Your task to perform on an android device: toggle improve location accuracy Image 0: 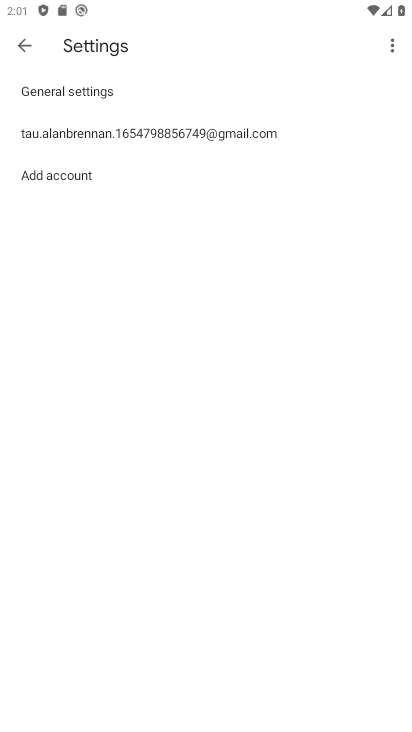
Step 0: press home button
Your task to perform on an android device: toggle improve location accuracy Image 1: 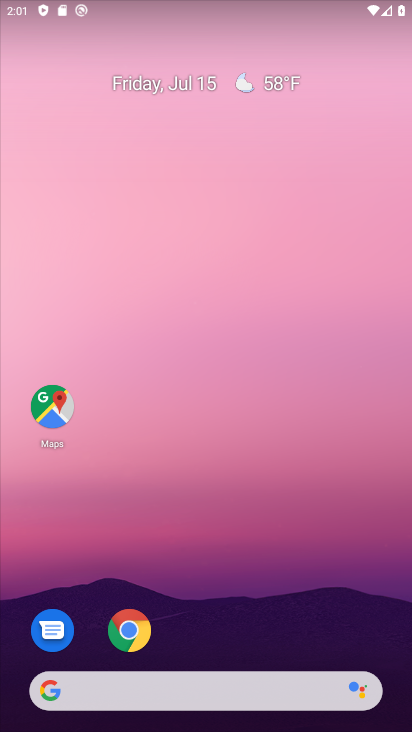
Step 1: drag from (365, 610) to (375, 116)
Your task to perform on an android device: toggle improve location accuracy Image 2: 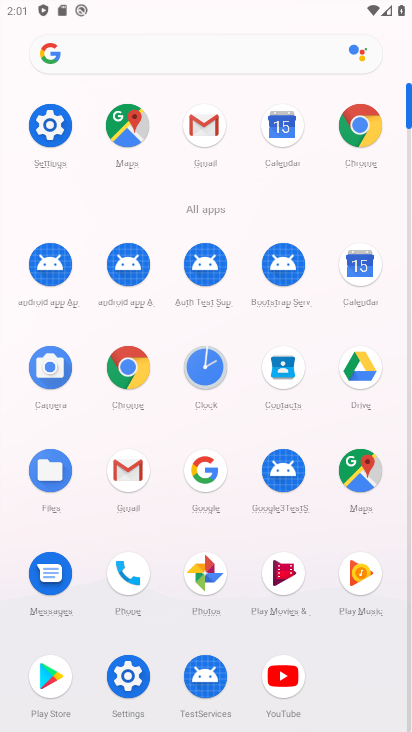
Step 2: click (47, 130)
Your task to perform on an android device: toggle improve location accuracy Image 3: 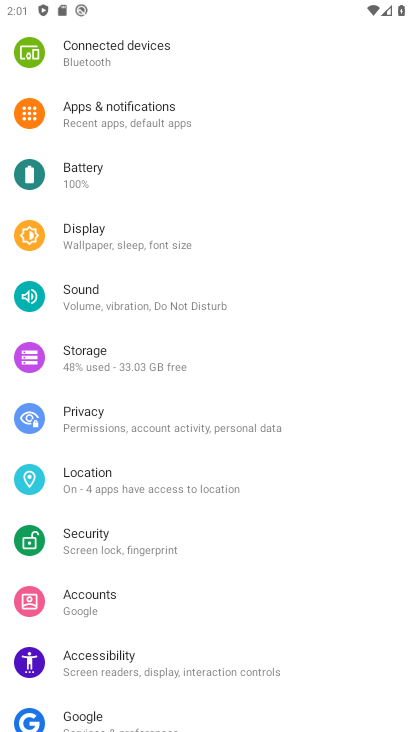
Step 3: drag from (304, 331) to (309, 296)
Your task to perform on an android device: toggle improve location accuracy Image 4: 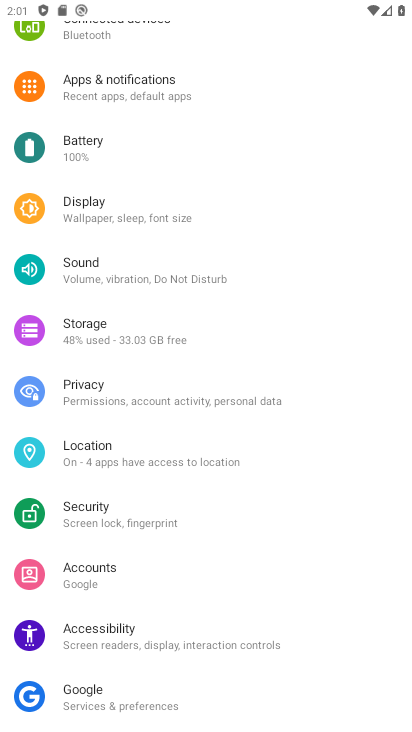
Step 4: drag from (341, 440) to (358, 340)
Your task to perform on an android device: toggle improve location accuracy Image 5: 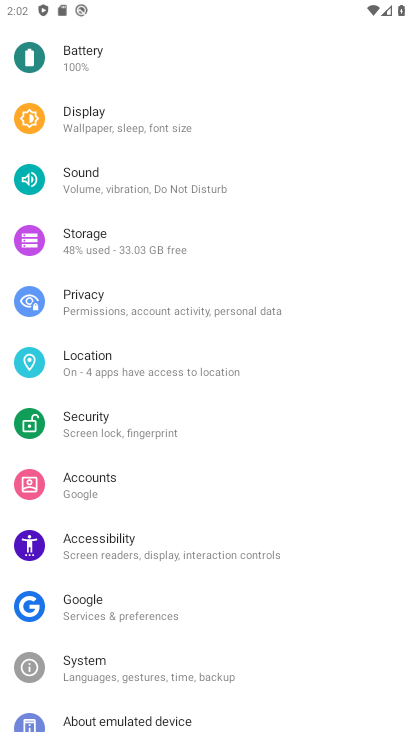
Step 5: drag from (333, 486) to (336, 316)
Your task to perform on an android device: toggle improve location accuracy Image 6: 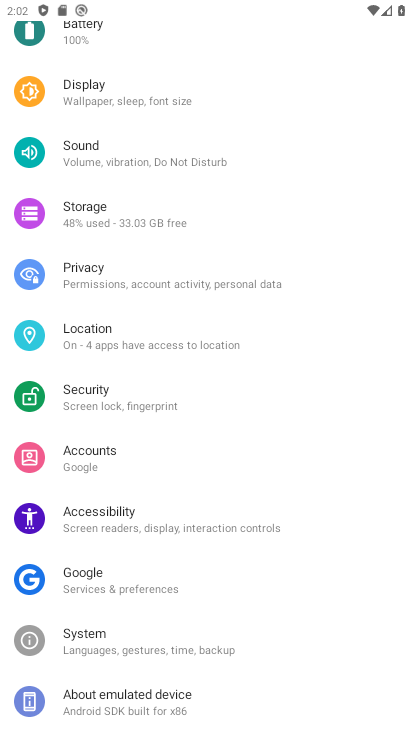
Step 6: click (245, 346)
Your task to perform on an android device: toggle improve location accuracy Image 7: 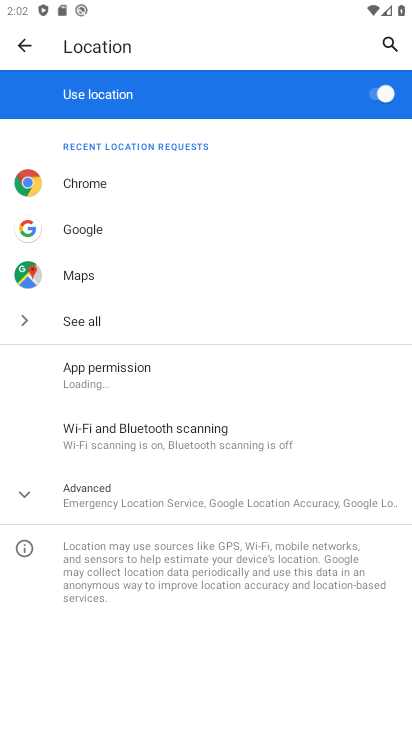
Step 7: click (217, 503)
Your task to perform on an android device: toggle improve location accuracy Image 8: 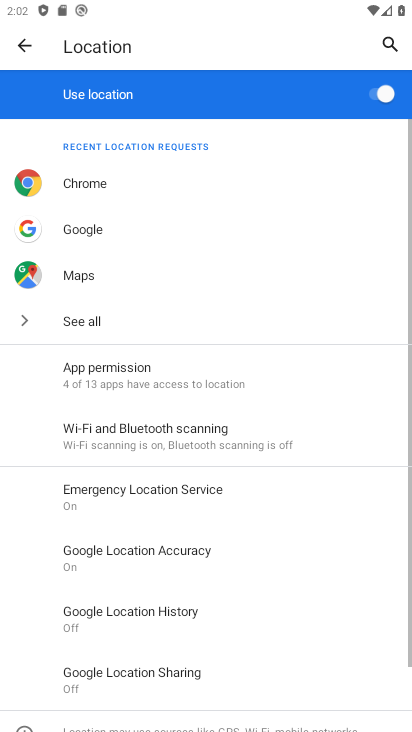
Step 8: drag from (256, 589) to (282, 447)
Your task to perform on an android device: toggle improve location accuracy Image 9: 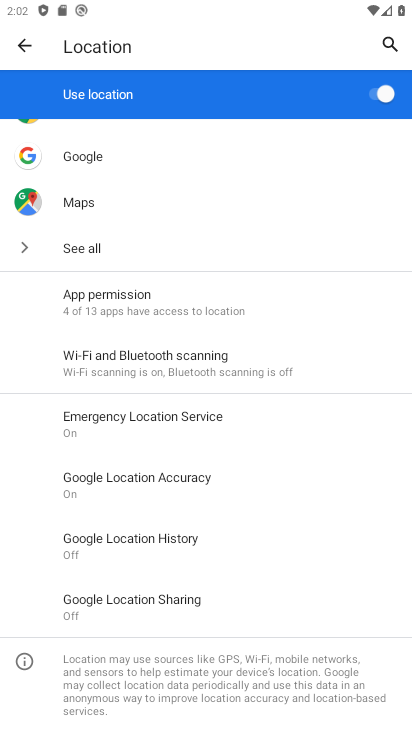
Step 9: click (168, 484)
Your task to perform on an android device: toggle improve location accuracy Image 10: 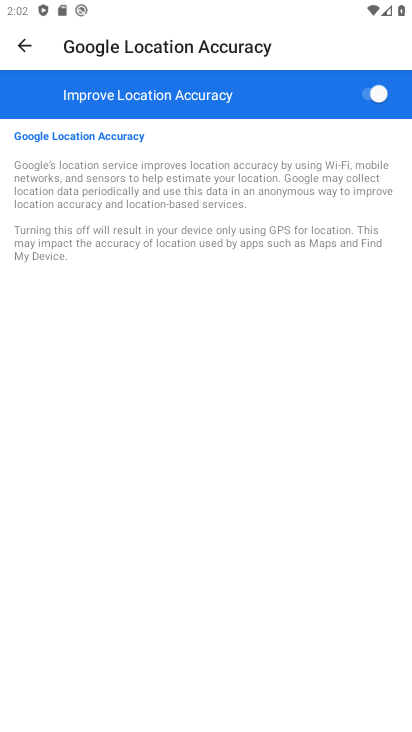
Step 10: click (374, 96)
Your task to perform on an android device: toggle improve location accuracy Image 11: 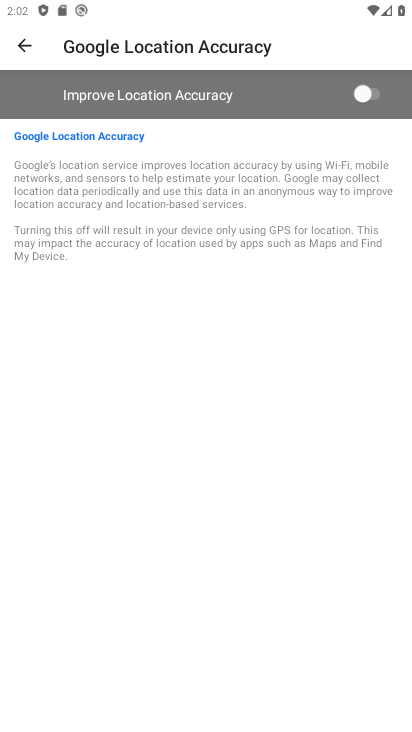
Step 11: task complete